Your task to perform on an android device: Toggle the flashlight Image 0: 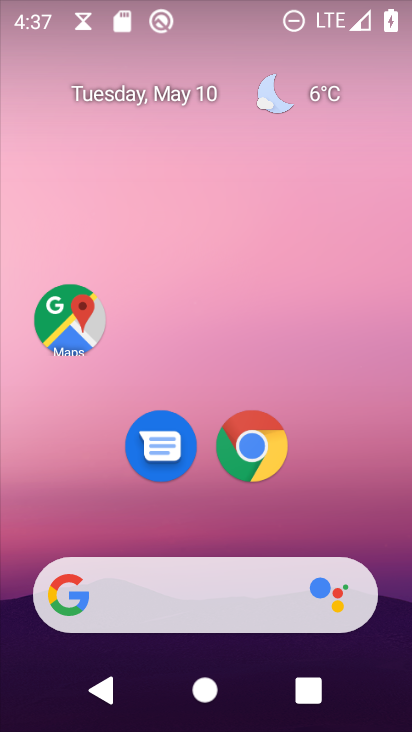
Step 0: drag from (235, 0) to (219, 449)
Your task to perform on an android device: Toggle the flashlight Image 1: 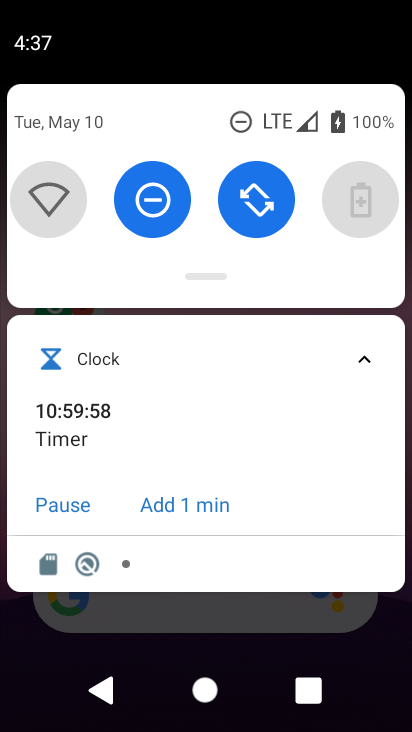
Step 1: task complete